Your task to perform on an android device: Show me productivity apps on the Play Store Image 0: 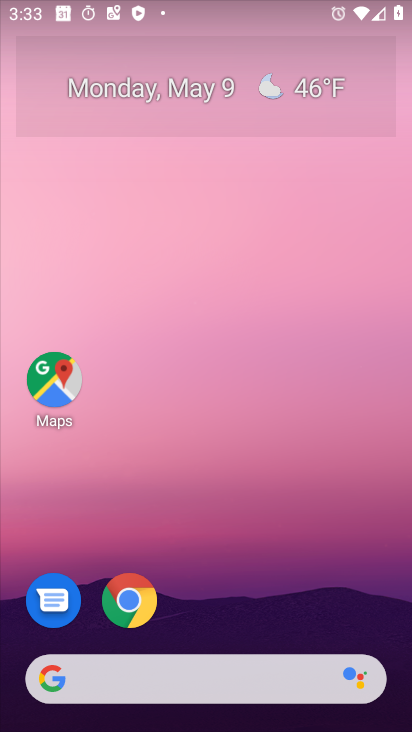
Step 0: drag from (218, 536) to (333, 50)
Your task to perform on an android device: Show me productivity apps on the Play Store Image 1: 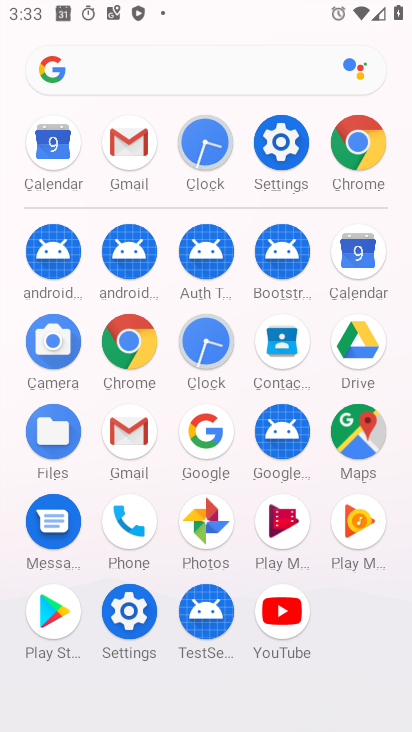
Step 1: click (42, 604)
Your task to perform on an android device: Show me productivity apps on the Play Store Image 2: 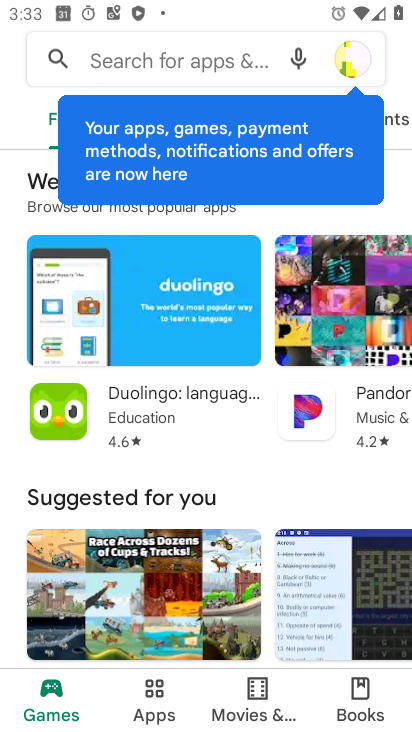
Step 2: click (167, 700)
Your task to perform on an android device: Show me productivity apps on the Play Store Image 3: 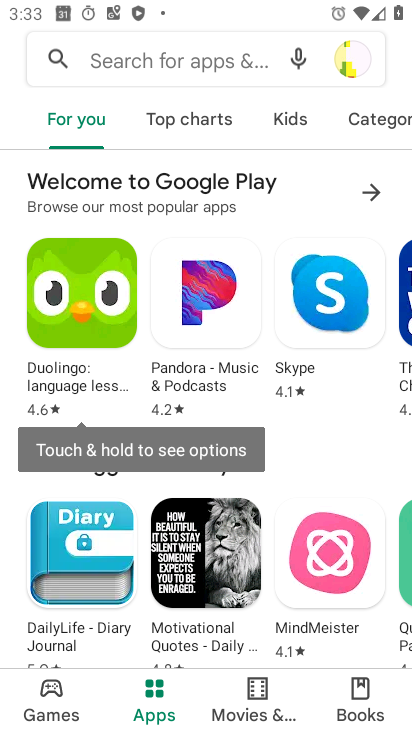
Step 3: drag from (140, 616) to (267, 169)
Your task to perform on an android device: Show me productivity apps on the Play Store Image 4: 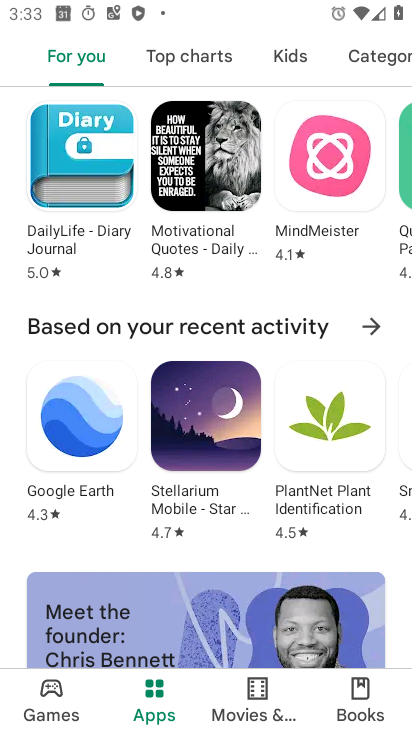
Step 4: drag from (172, 578) to (306, 89)
Your task to perform on an android device: Show me productivity apps on the Play Store Image 5: 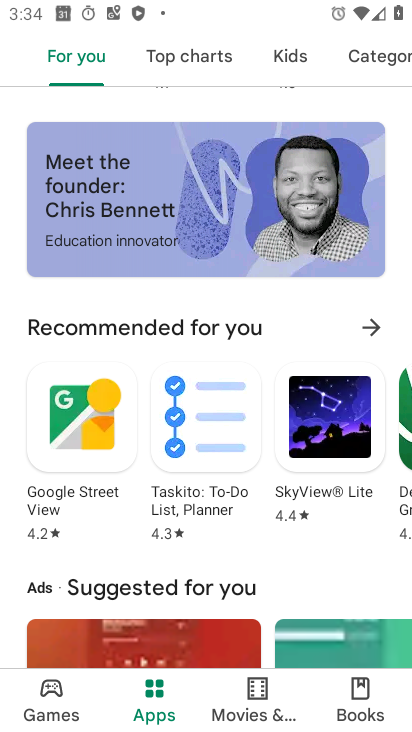
Step 5: drag from (157, 551) to (245, 206)
Your task to perform on an android device: Show me productivity apps on the Play Store Image 6: 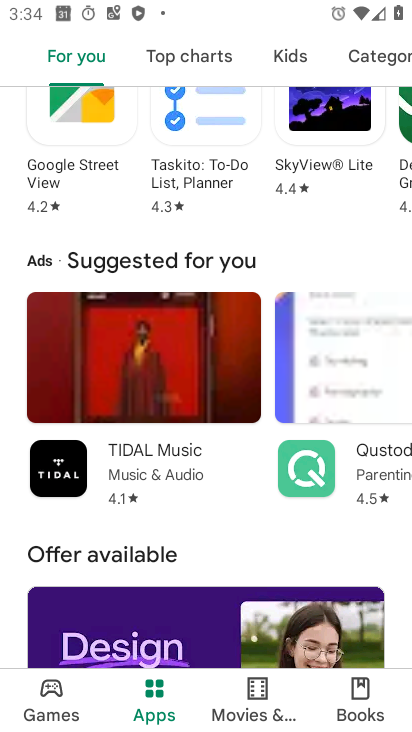
Step 6: drag from (139, 604) to (247, 100)
Your task to perform on an android device: Show me productivity apps on the Play Store Image 7: 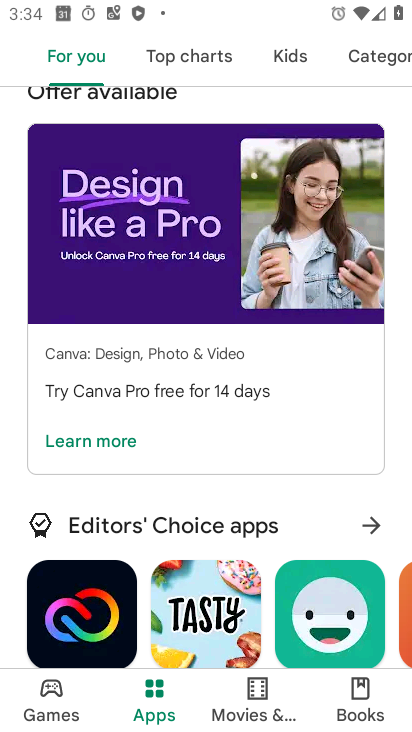
Step 7: drag from (150, 570) to (294, 111)
Your task to perform on an android device: Show me productivity apps on the Play Store Image 8: 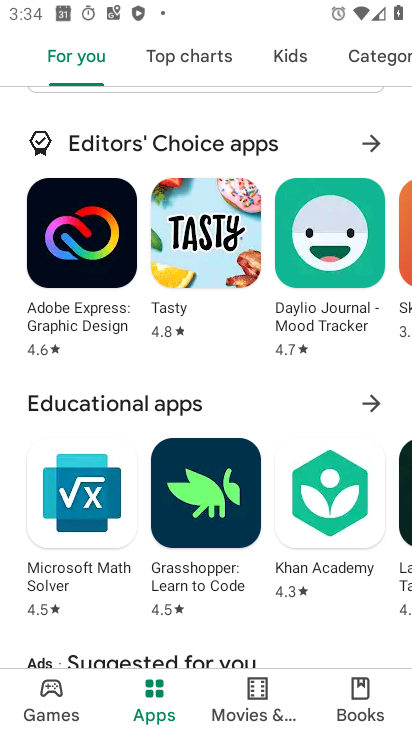
Step 8: drag from (184, 606) to (305, 124)
Your task to perform on an android device: Show me productivity apps on the Play Store Image 9: 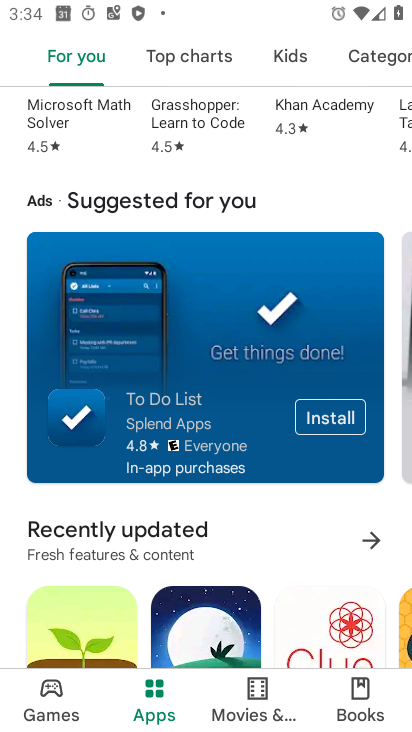
Step 9: drag from (194, 566) to (264, 272)
Your task to perform on an android device: Show me productivity apps on the Play Store Image 10: 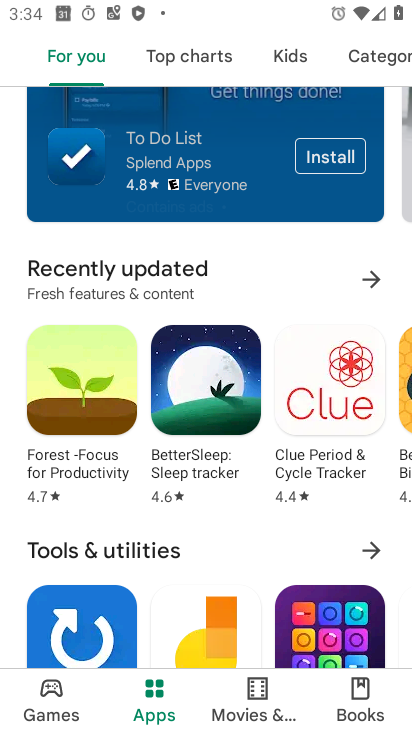
Step 10: drag from (220, 555) to (297, 133)
Your task to perform on an android device: Show me productivity apps on the Play Store Image 11: 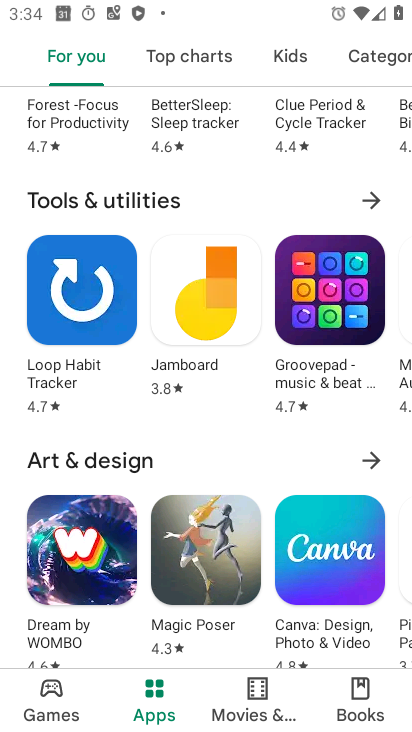
Step 11: drag from (227, 594) to (309, 85)
Your task to perform on an android device: Show me productivity apps on the Play Store Image 12: 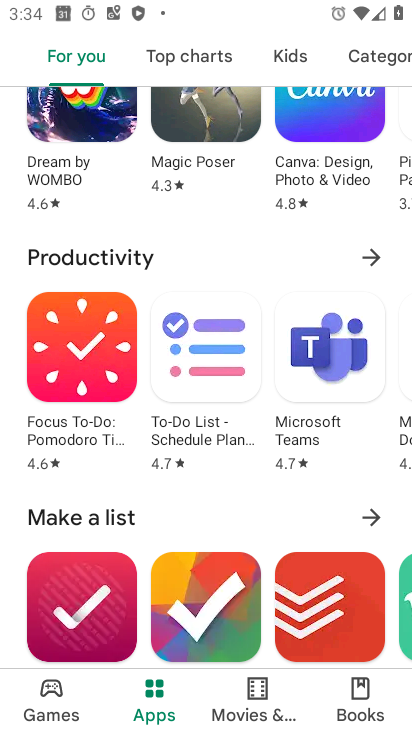
Step 12: click (352, 246)
Your task to perform on an android device: Show me productivity apps on the Play Store Image 13: 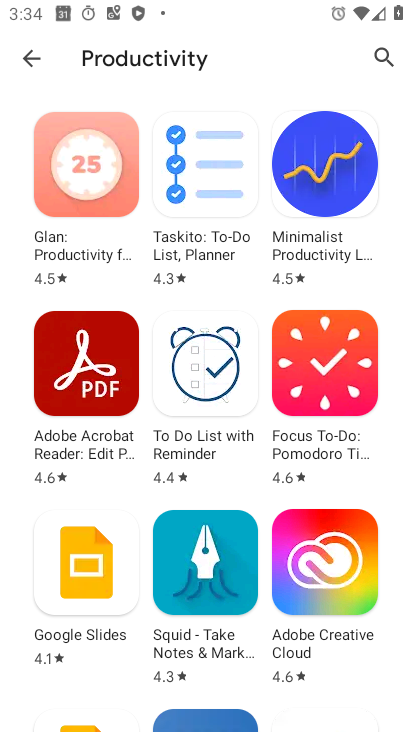
Step 13: task complete